Your task to perform on an android device: change the upload size in google photos Image 0: 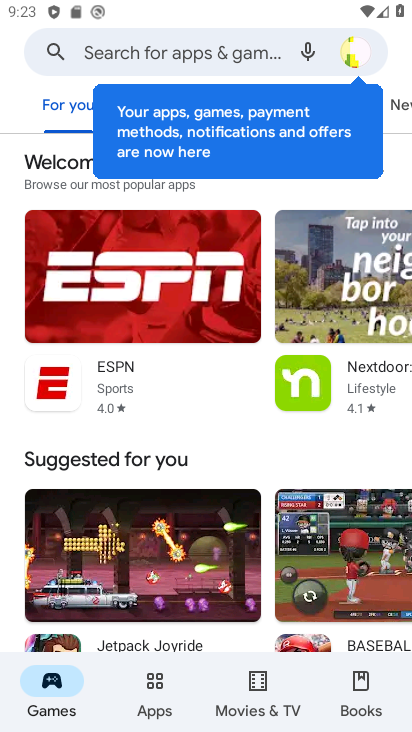
Step 0: press home button
Your task to perform on an android device: change the upload size in google photos Image 1: 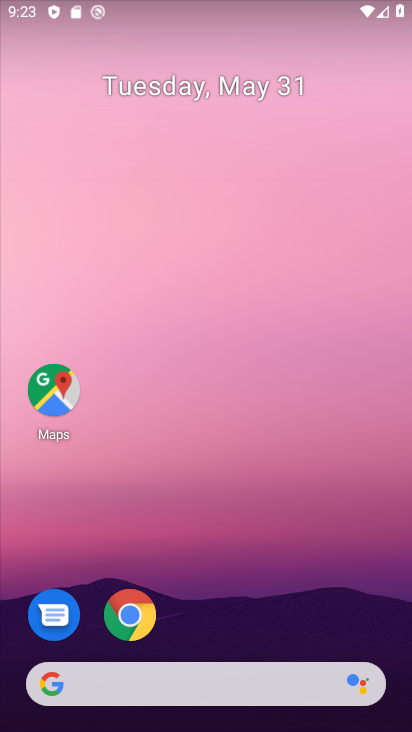
Step 1: drag from (317, 548) to (335, 34)
Your task to perform on an android device: change the upload size in google photos Image 2: 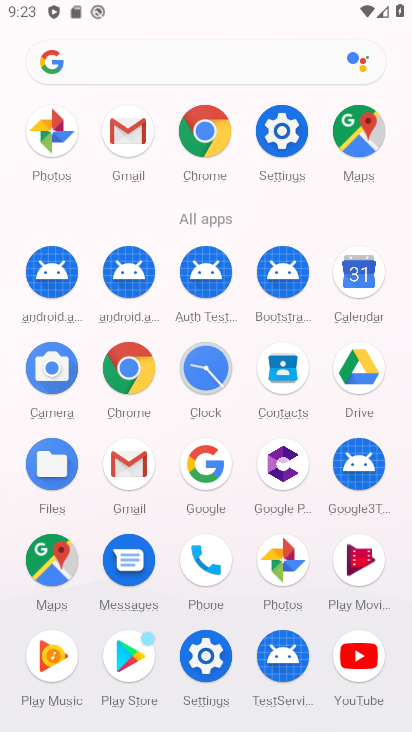
Step 2: click (279, 554)
Your task to perform on an android device: change the upload size in google photos Image 3: 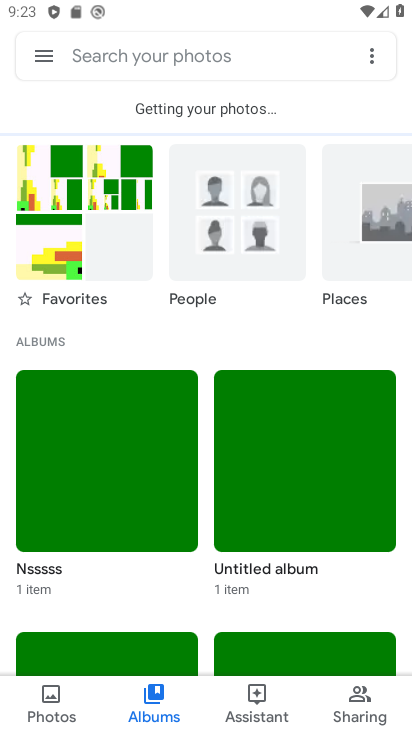
Step 3: click (46, 58)
Your task to perform on an android device: change the upload size in google photos Image 4: 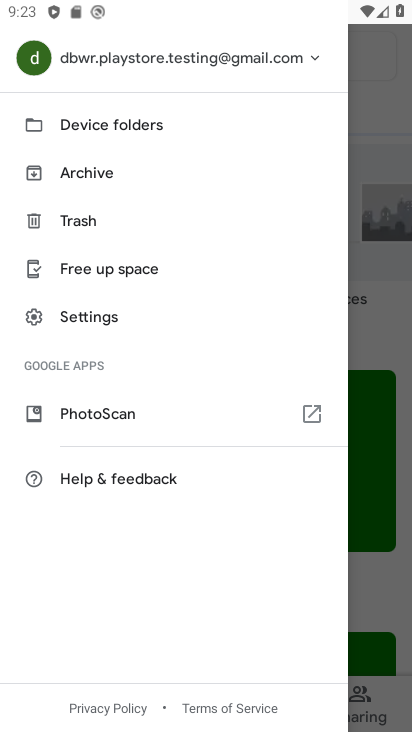
Step 4: click (81, 314)
Your task to perform on an android device: change the upload size in google photos Image 5: 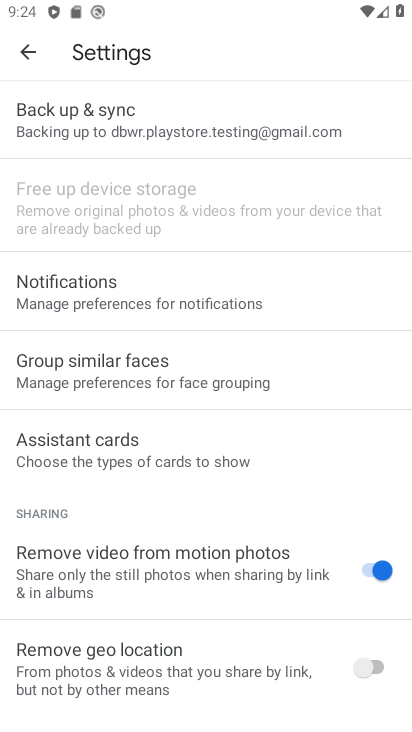
Step 5: click (97, 121)
Your task to perform on an android device: change the upload size in google photos Image 6: 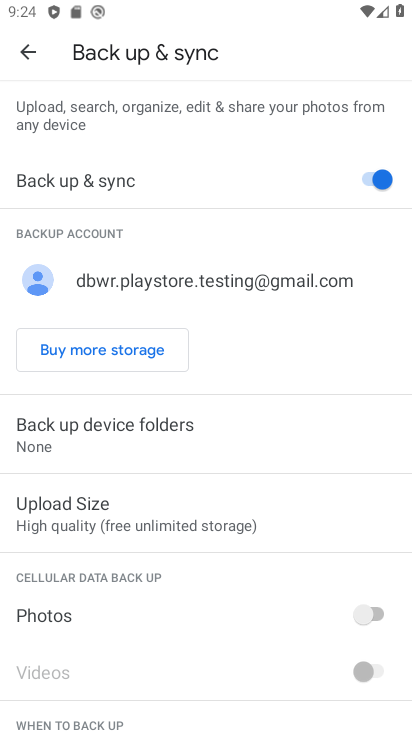
Step 6: click (94, 524)
Your task to perform on an android device: change the upload size in google photos Image 7: 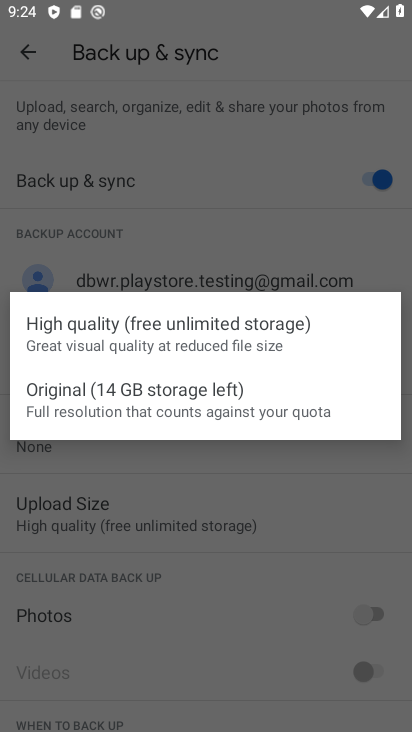
Step 7: click (160, 413)
Your task to perform on an android device: change the upload size in google photos Image 8: 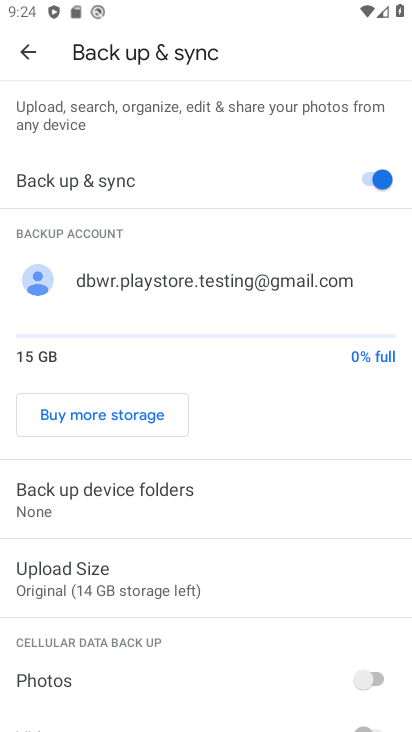
Step 8: task complete